Your task to perform on an android device: set default search engine in the chrome app Image 0: 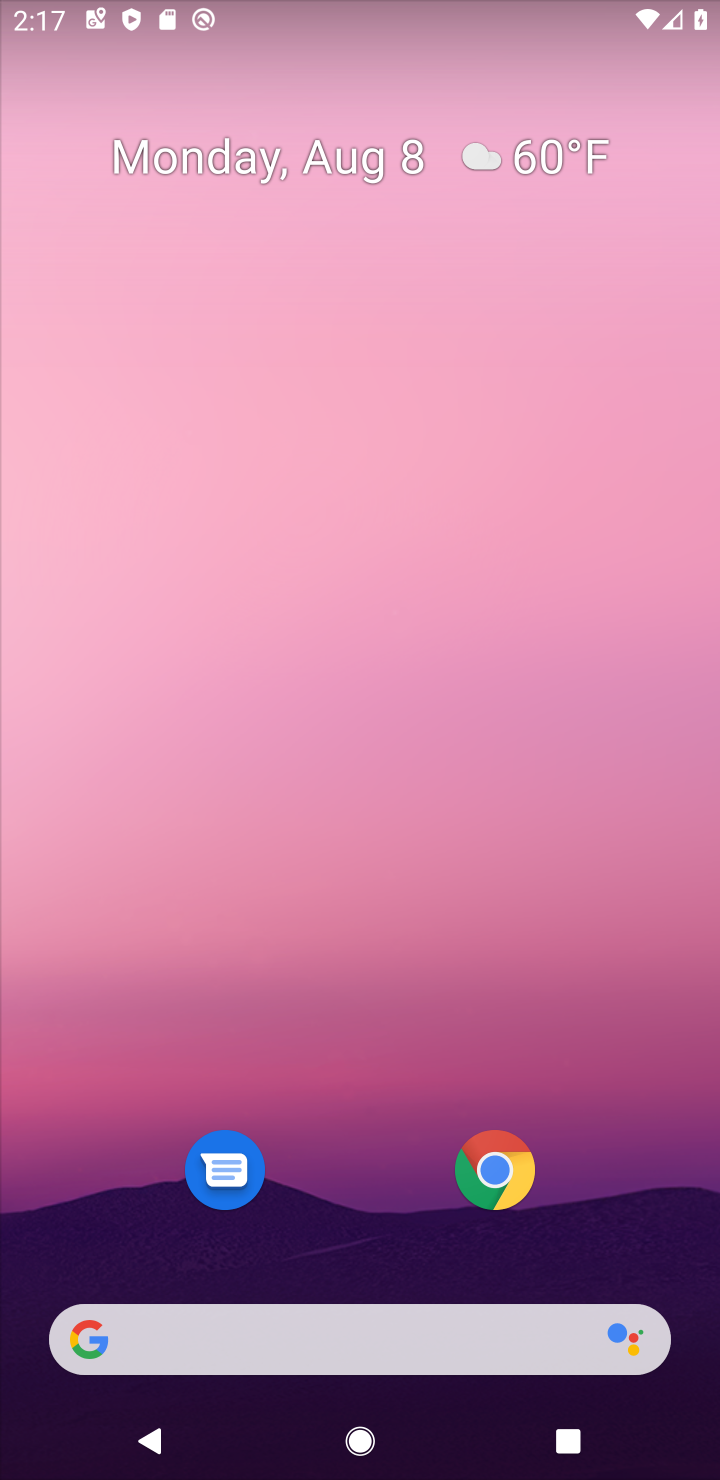
Step 0: click (521, 1166)
Your task to perform on an android device: set default search engine in the chrome app Image 1: 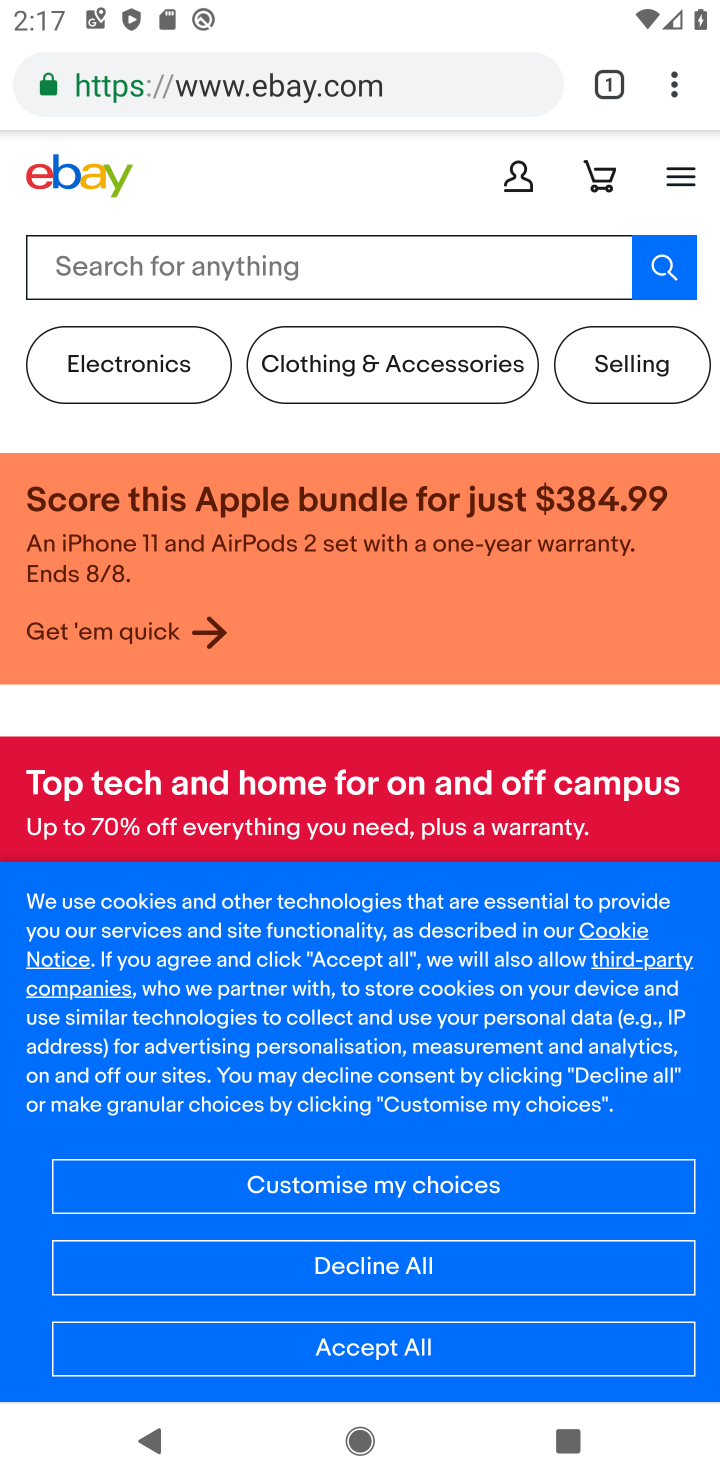
Step 1: click (662, 78)
Your task to perform on an android device: set default search engine in the chrome app Image 2: 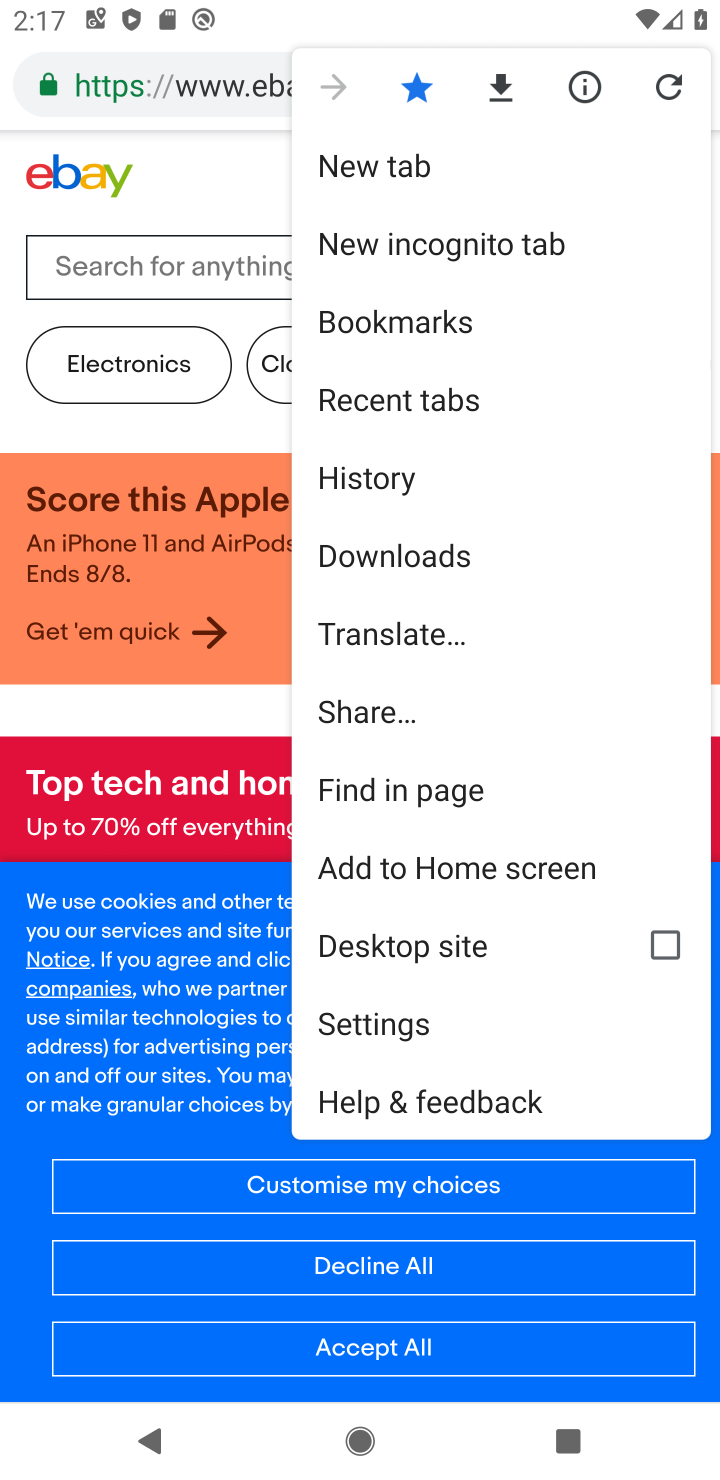
Step 2: click (446, 1028)
Your task to perform on an android device: set default search engine in the chrome app Image 3: 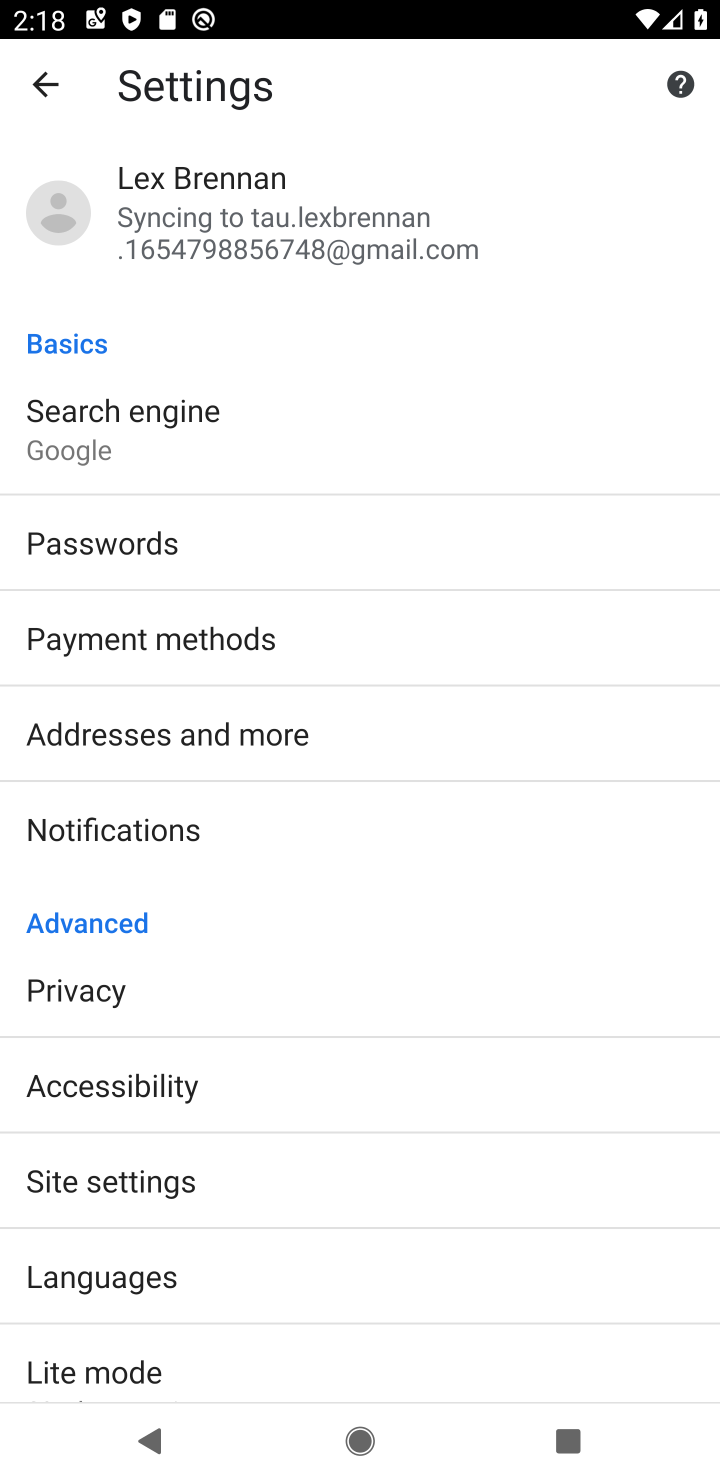
Step 3: click (256, 488)
Your task to perform on an android device: set default search engine in the chrome app Image 4: 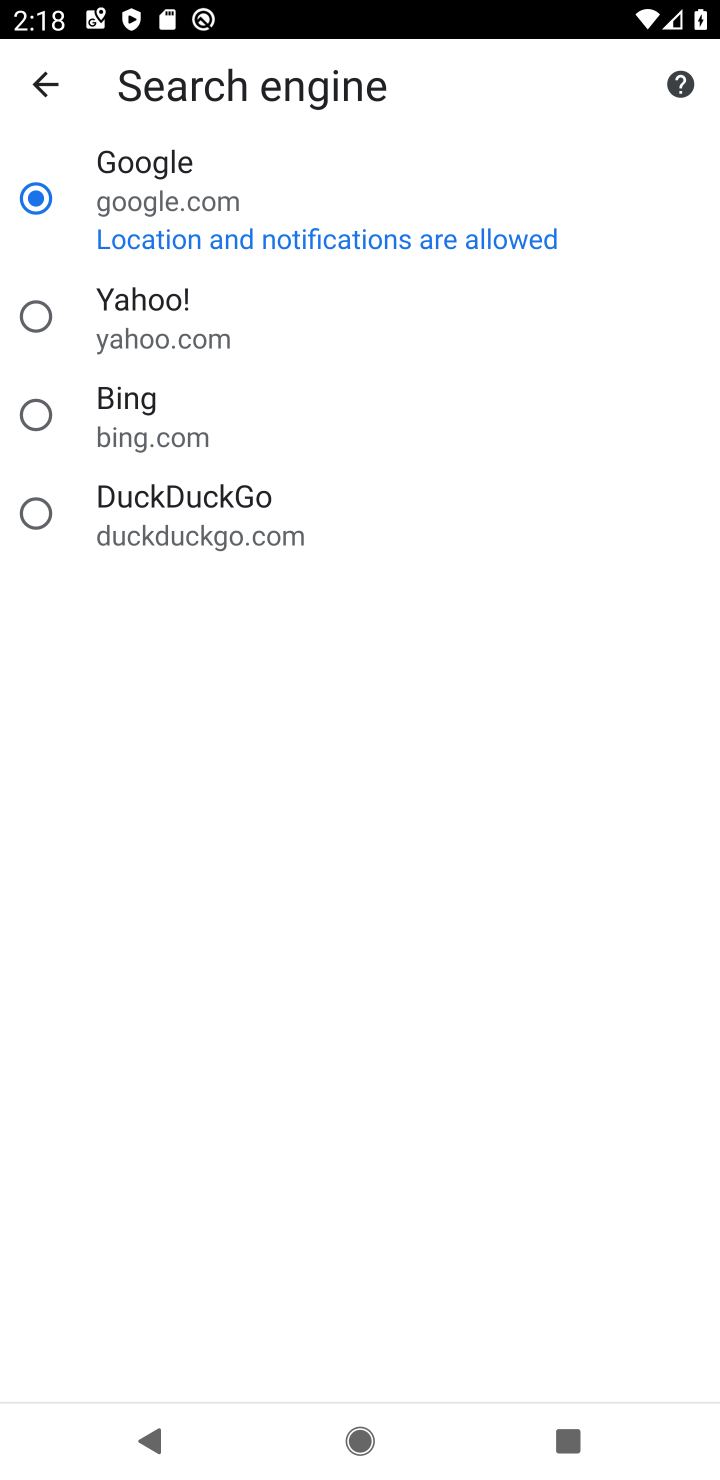
Step 4: task complete